Your task to perform on an android device: Is it going to rain tomorrow? Image 0: 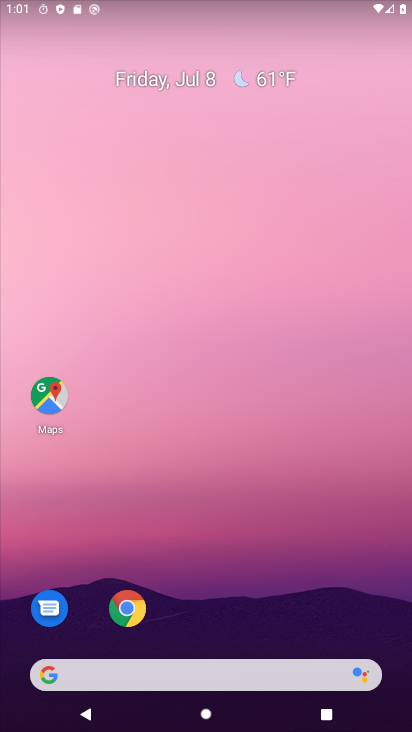
Step 0: drag from (221, 616) to (302, 133)
Your task to perform on an android device: Is it going to rain tomorrow? Image 1: 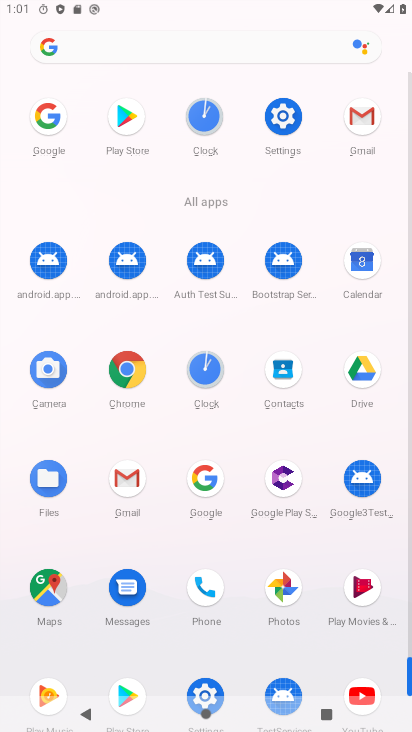
Step 1: click (208, 483)
Your task to perform on an android device: Is it going to rain tomorrow? Image 2: 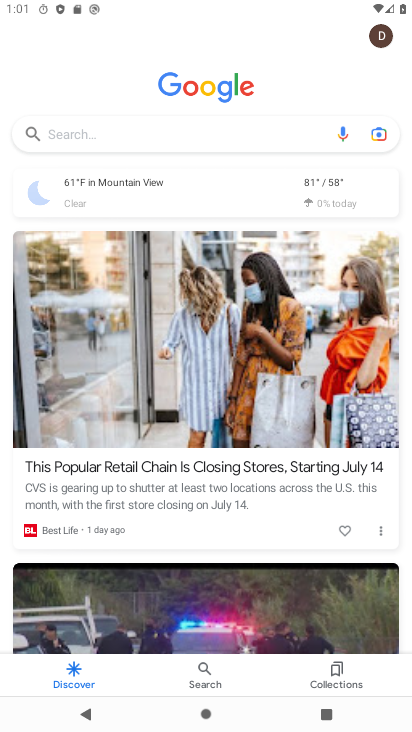
Step 2: click (164, 133)
Your task to perform on an android device: Is it going to rain tomorrow? Image 3: 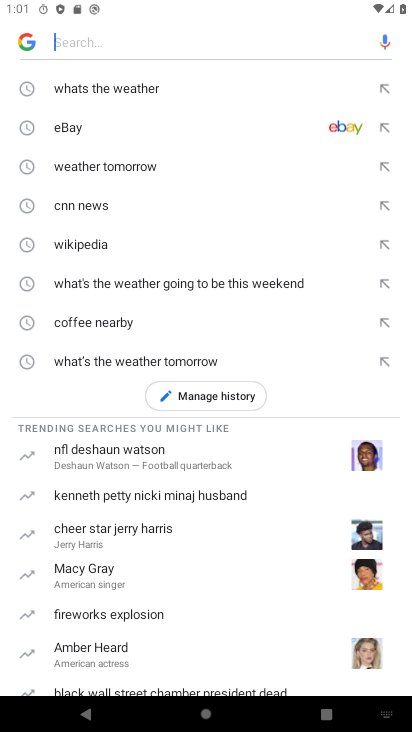
Step 3: type "is it going to rain tomorrow"
Your task to perform on an android device: Is it going to rain tomorrow? Image 4: 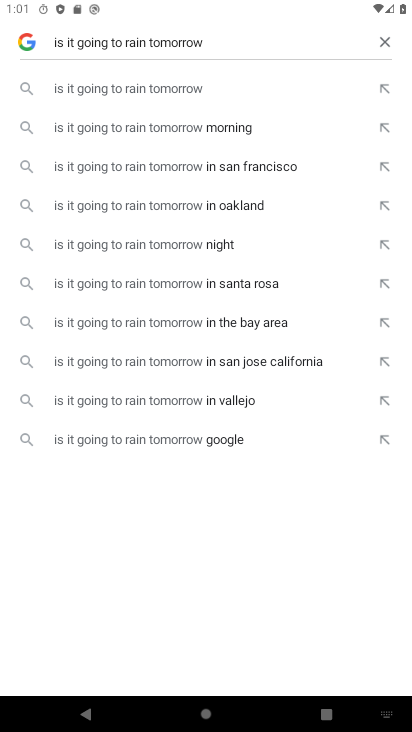
Step 4: click (163, 82)
Your task to perform on an android device: Is it going to rain tomorrow? Image 5: 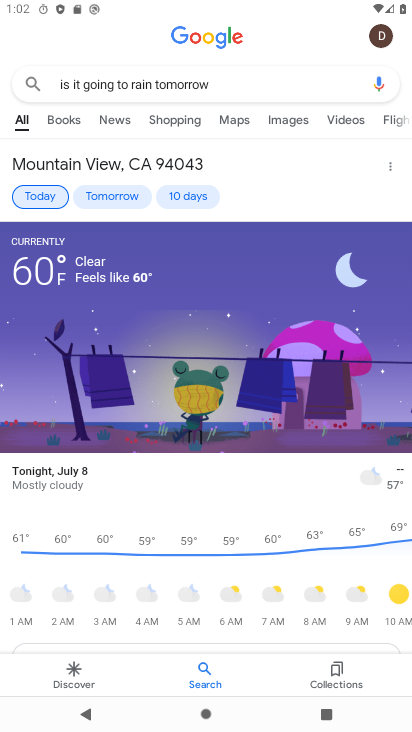
Step 5: click (121, 196)
Your task to perform on an android device: Is it going to rain tomorrow? Image 6: 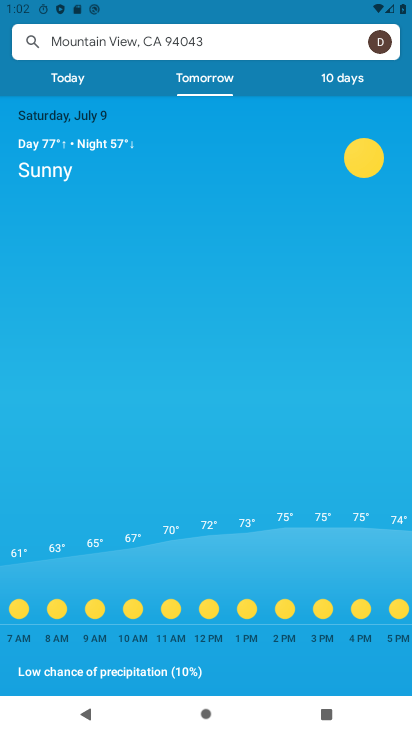
Step 6: task complete